Your task to perform on an android device: turn on translation in the chrome app Image 0: 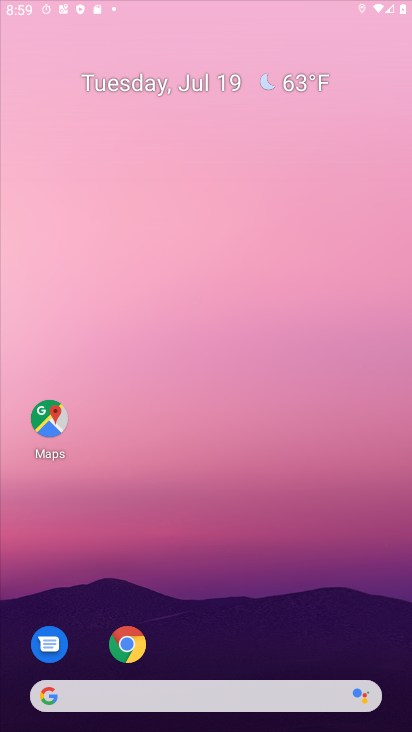
Step 0: drag from (270, 652) to (183, 271)
Your task to perform on an android device: turn on translation in the chrome app Image 1: 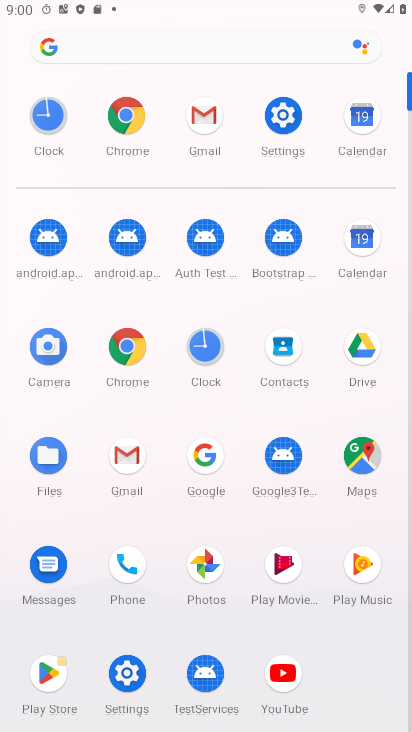
Step 1: click (128, 347)
Your task to perform on an android device: turn on translation in the chrome app Image 2: 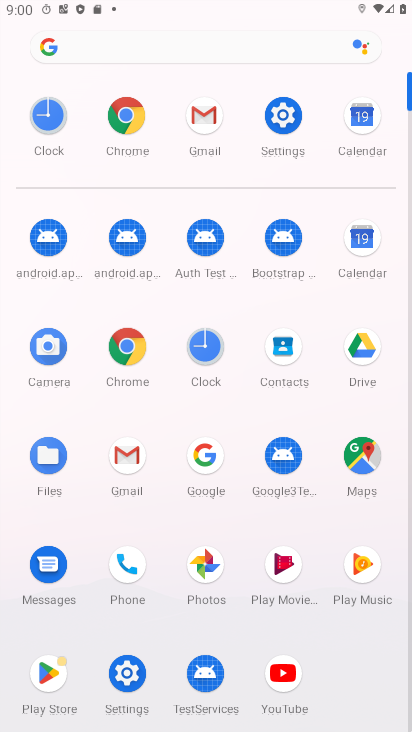
Step 2: click (128, 346)
Your task to perform on an android device: turn on translation in the chrome app Image 3: 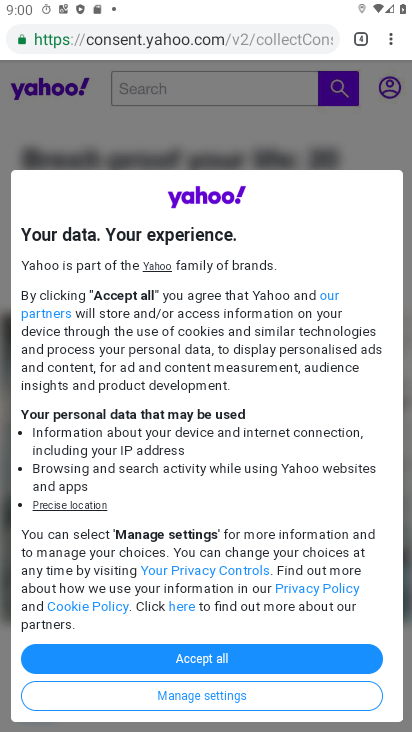
Step 3: click (392, 47)
Your task to perform on an android device: turn on translation in the chrome app Image 4: 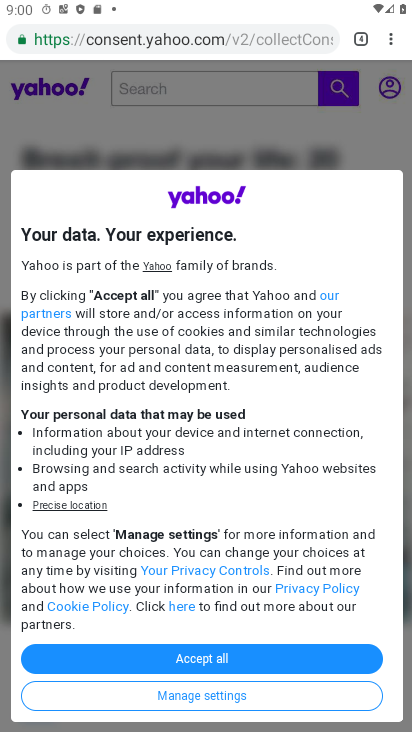
Step 4: drag from (386, 36) to (256, 471)
Your task to perform on an android device: turn on translation in the chrome app Image 5: 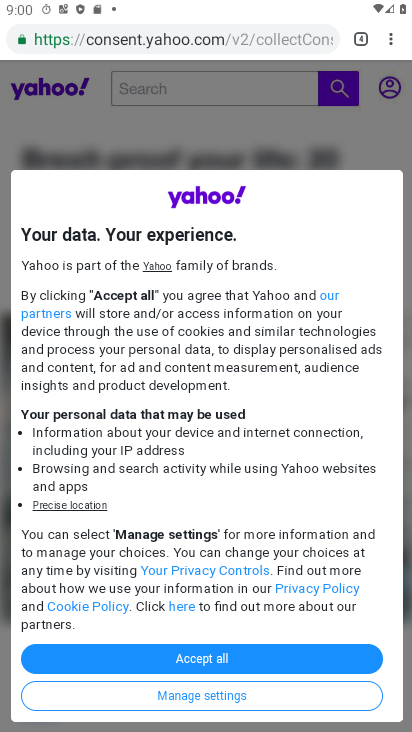
Step 5: click (259, 471)
Your task to perform on an android device: turn on translation in the chrome app Image 6: 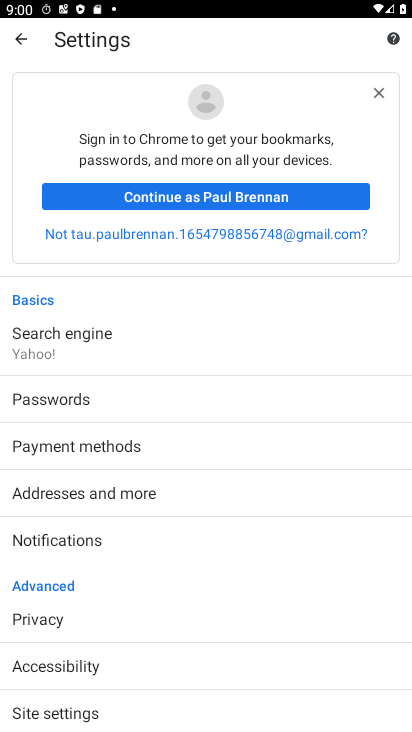
Step 6: drag from (38, 621) to (87, 263)
Your task to perform on an android device: turn on translation in the chrome app Image 7: 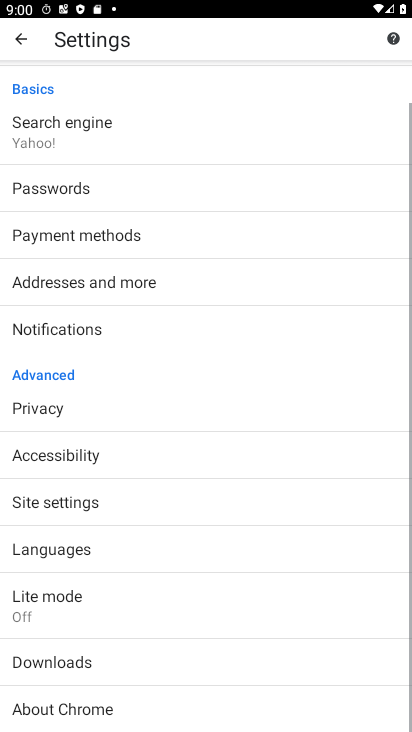
Step 7: drag from (137, 538) to (123, 333)
Your task to perform on an android device: turn on translation in the chrome app Image 8: 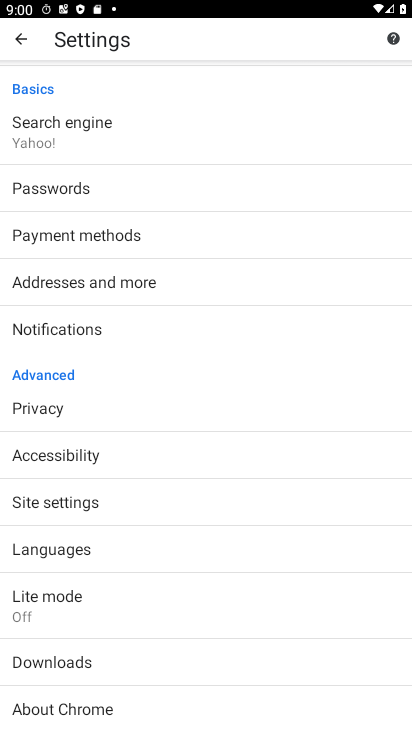
Step 8: click (54, 540)
Your task to perform on an android device: turn on translation in the chrome app Image 9: 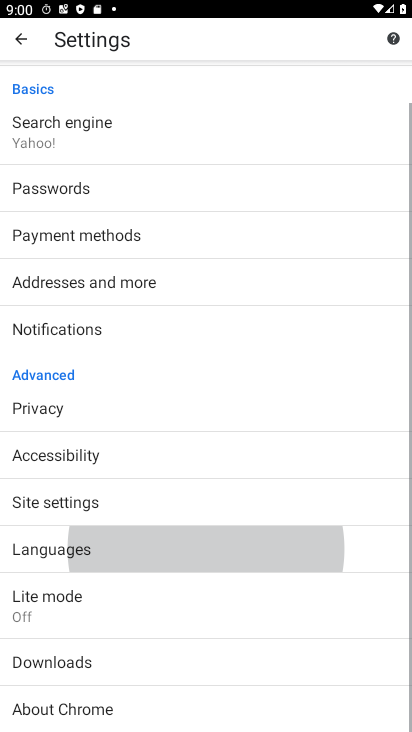
Step 9: click (57, 548)
Your task to perform on an android device: turn on translation in the chrome app Image 10: 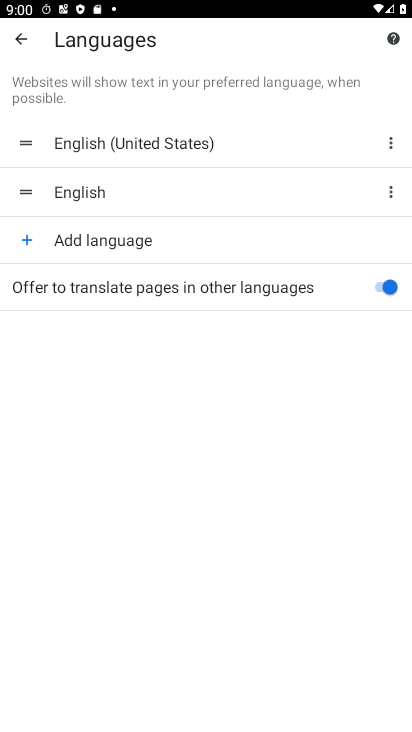
Step 10: task complete